Your task to perform on an android device: toggle javascript in the chrome app Image 0: 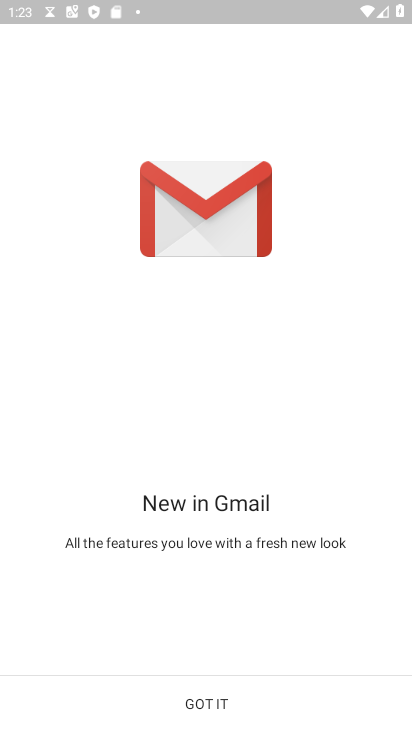
Step 0: click (196, 704)
Your task to perform on an android device: toggle javascript in the chrome app Image 1: 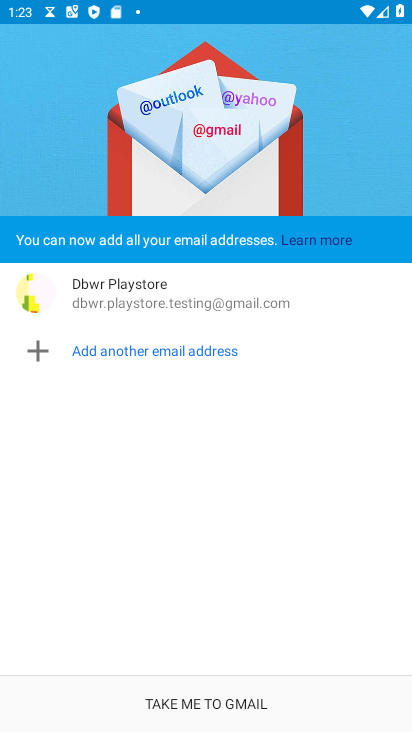
Step 1: press home button
Your task to perform on an android device: toggle javascript in the chrome app Image 2: 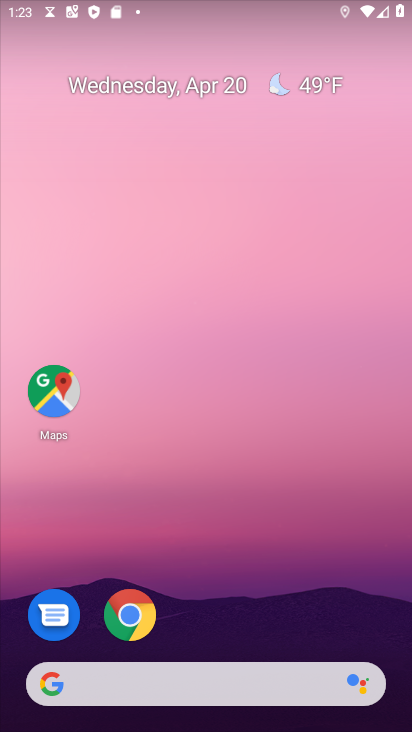
Step 2: click (136, 619)
Your task to perform on an android device: toggle javascript in the chrome app Image 3: 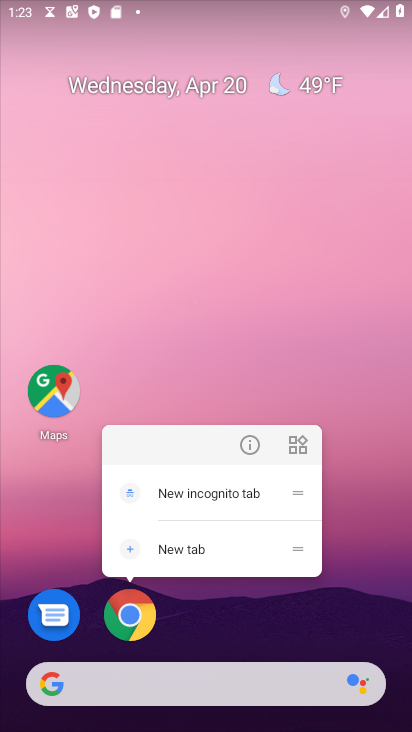
Step 3: click (372, 497)
Your task to perform on an android device: toggle javascript in the chrome app Image 4: 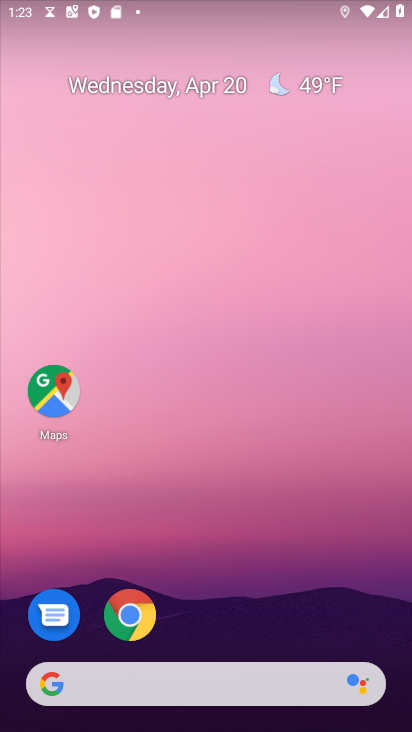
Step 4: click (131, 601)
Your task to perform on an android device: toggle javascript in the chrome app Image 5: 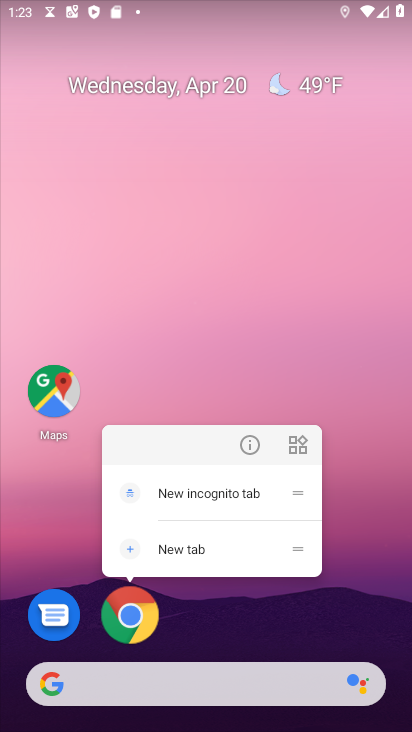
Step 5: click (122, 603)
Your task to perform on an android device: toggle javascript in the chrome app Image 6: 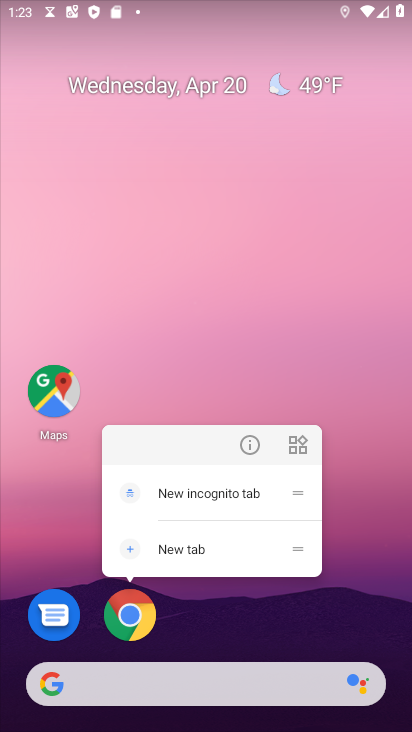
Step 6: click (122, 603)
Your task to perform on an android device: toggle javascript in the chrome app Image 7: 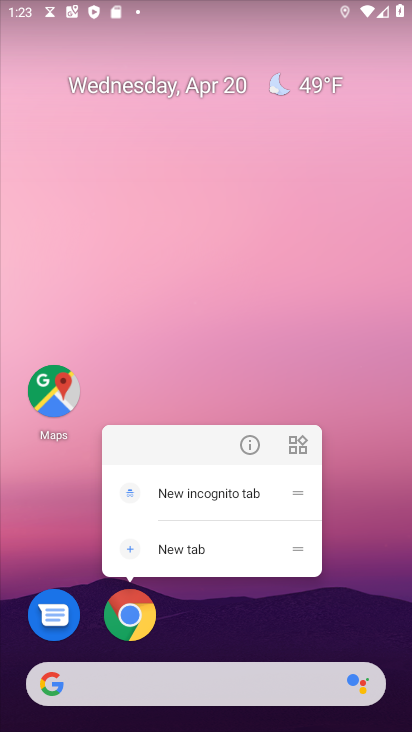
Step 7: click (125, 602)
Your task to perform on an android device: toggle javascript in the chrome app Image 8: 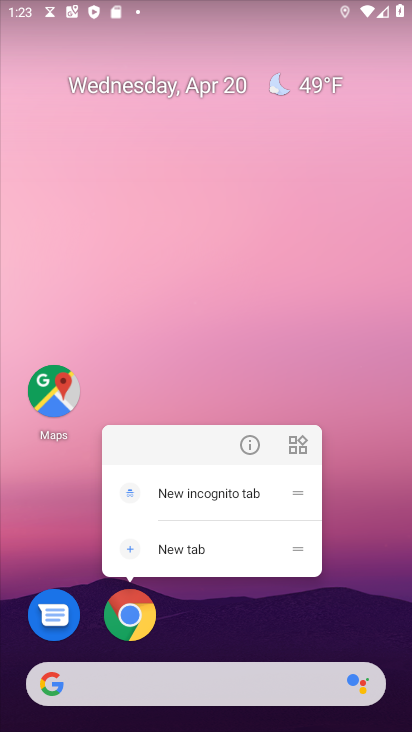
Step 8: click (131, 589)
Your task to perform on an android device: toggle javascript in the chrome app Image 9: 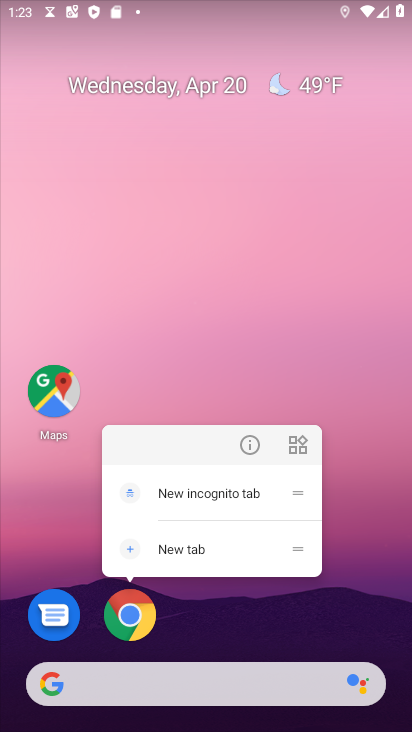
Step 9: click (135, 609)
Your task to perform on an android device: toggle javascript in the chrome app Image 10: 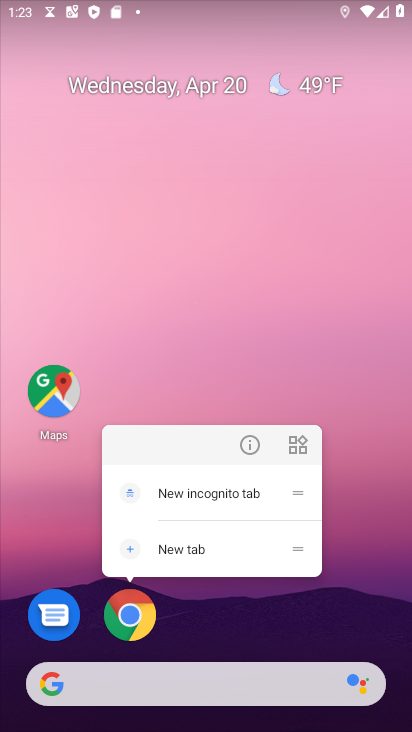
Step 10: click (136, 610)
Your task to perform on an android device: toggle javascript in the chrome app Image 11: 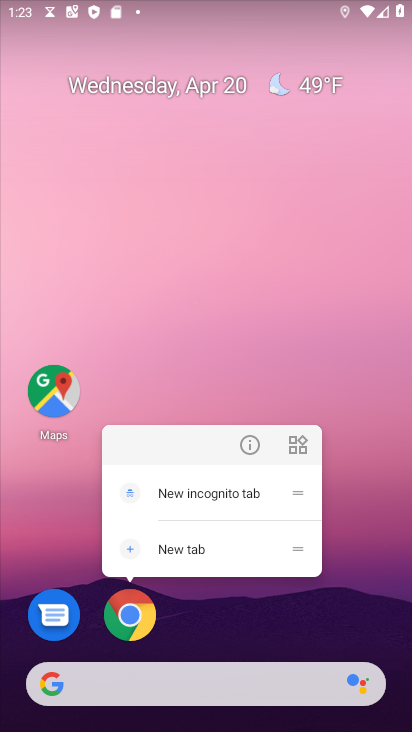
Step 11: click (114, 617)
Your task to perform on an android device: toggle javascript in the chrome app Image 12: 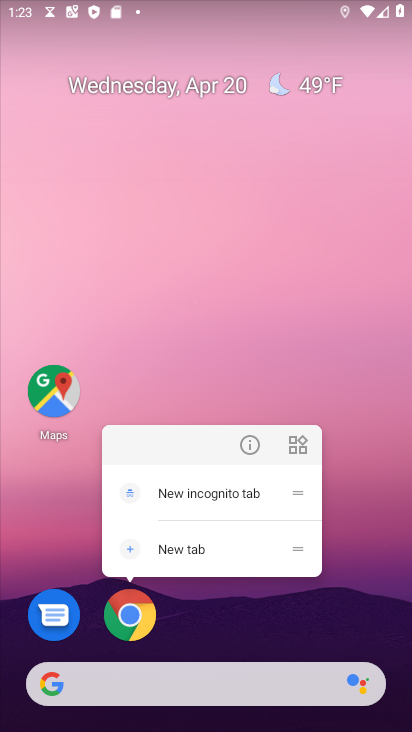
Step 12: click (115, 616)
Your task to perform on an android device: toggle javascript in the chrome app Image 13: 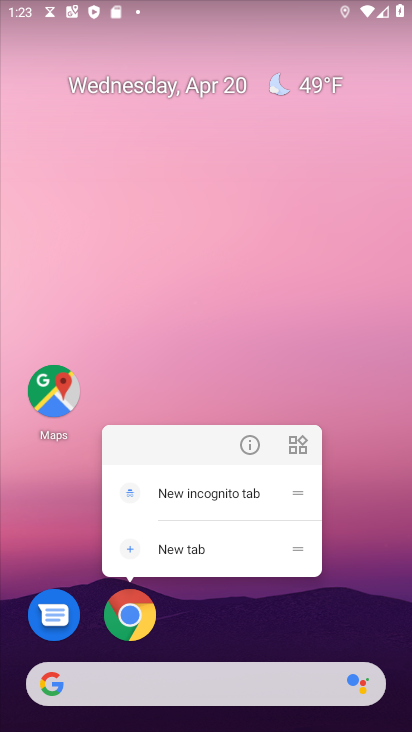
Step 13: click (63, 364)
Your task to perform on an android device: toggle javascript in the chrome app Image 14: 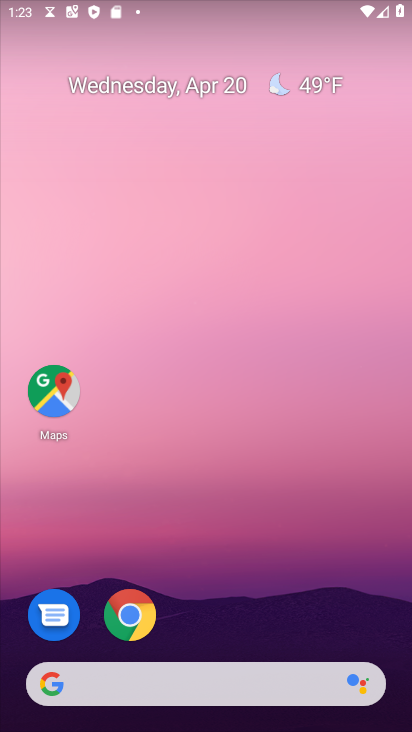
Step 14: click (121, 593)
Your task to perform on an android device: toggle javascript in the chrome app Image 15: 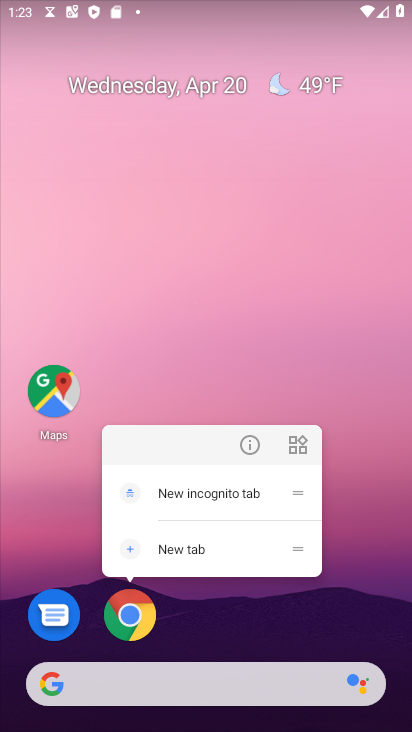
Step 15: click (124, 593)
Your task to perform on an android device: toggle javascript in the chrome app Image 16: 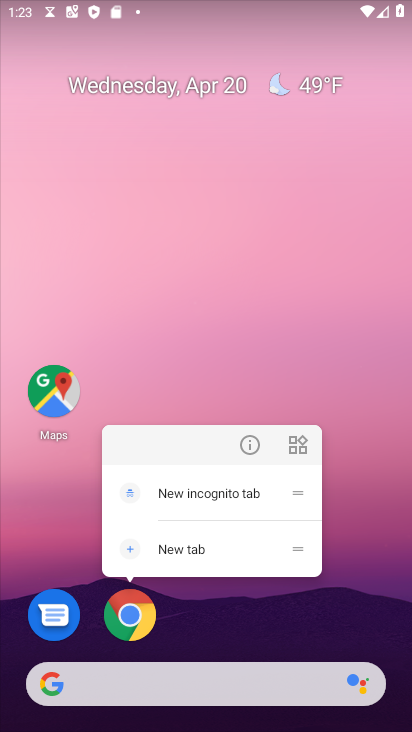
Step 16: click (132, 609)
Your task to perform on an android device: toggle javascript in the chrome app Image 17: 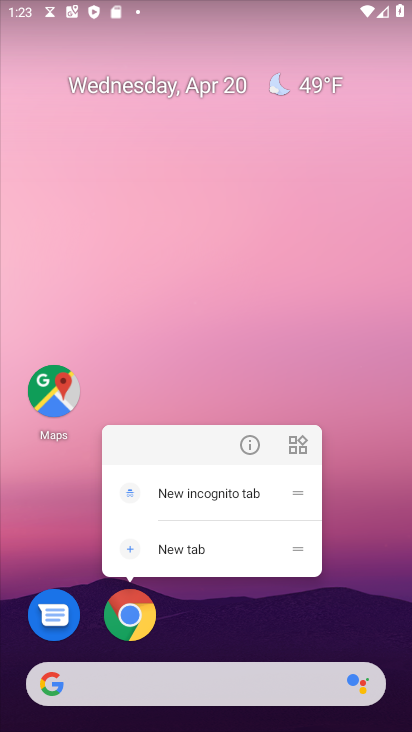
Step 17: click (134, 606)
Your task to perform on an android device: toggle javascript in the chrome app Image 18: 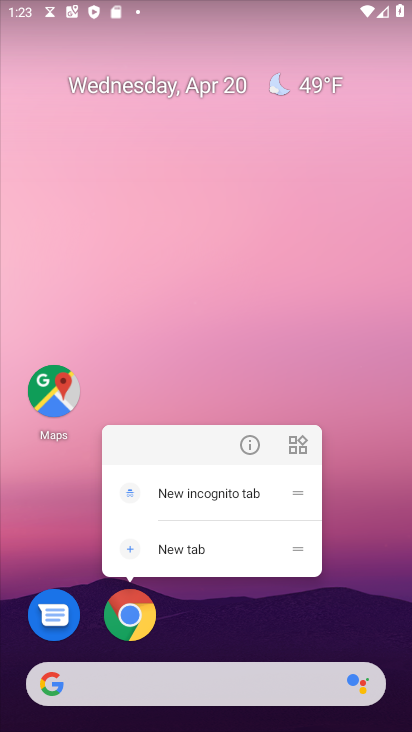
Step 18: click (134, 601)
Your task to perform on an android device: toggle javascript in the chrome app Image 19: 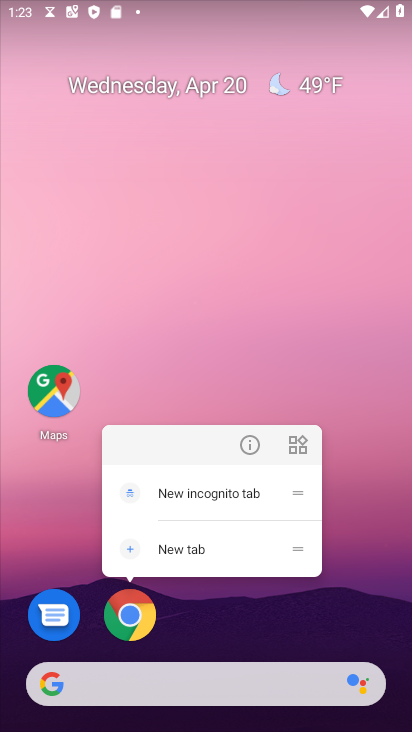
Step 19: click (134, 599)
Your task to perform on an android device: toggle javascript in the chrome app Image 20: 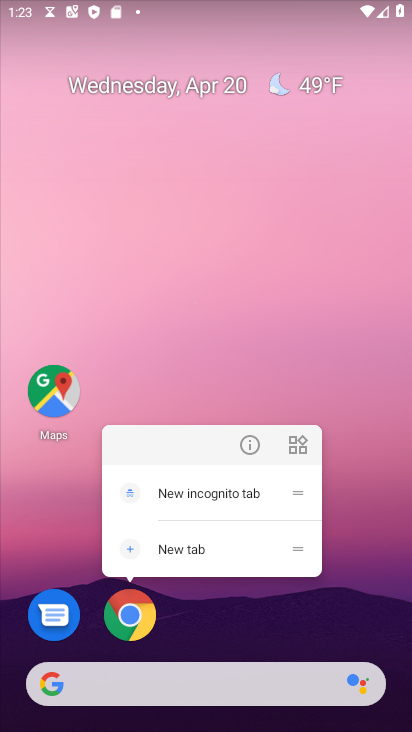
Step 20: click (136, 596)
Your task to perform on an android device: toggle javascript in the chrome app Image 21: 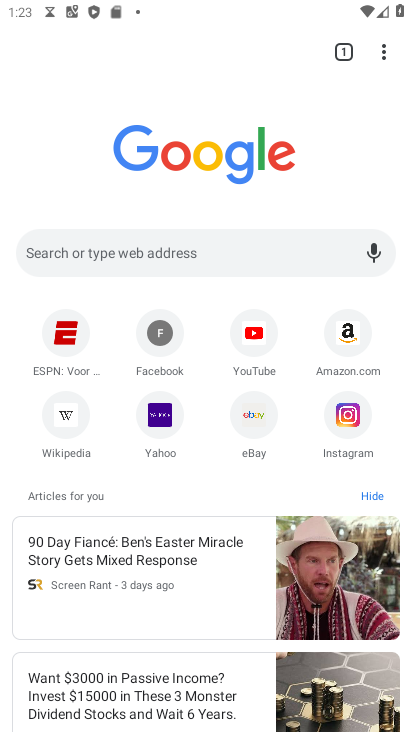
Step 21: click (375, 51)
Your task to perform on an android device: toggle javascript in the chrome app Image 22: 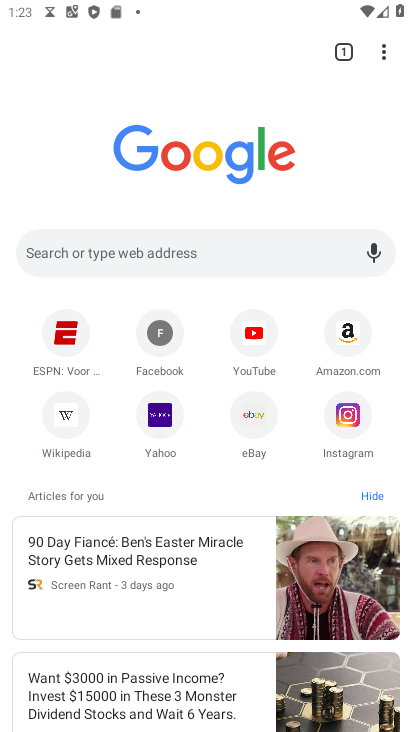
Step 22: click (379, 49)
Your task to perform on an android device: toggle javascript in the chrome app Image 23: 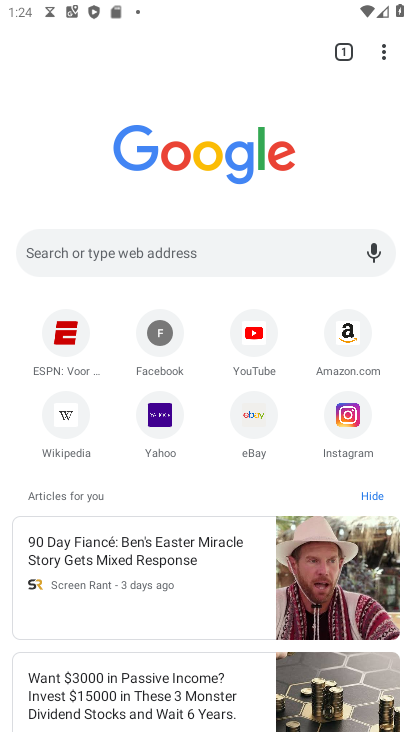
Step 23: drag from (399, 146) to (381, 46)
Your task to perform on an android device: toggle javascript in the chrome app Image 24: 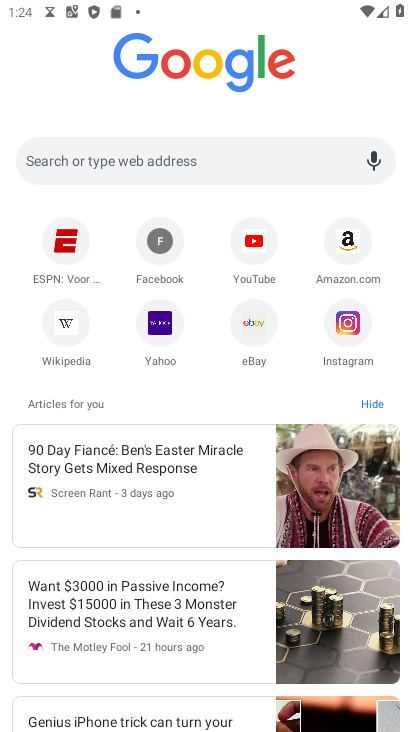
Step 24: drag from (346, 170) to (398, 145)
Your task to perform on an android device: toggle javascript in the chrome app Image 25: 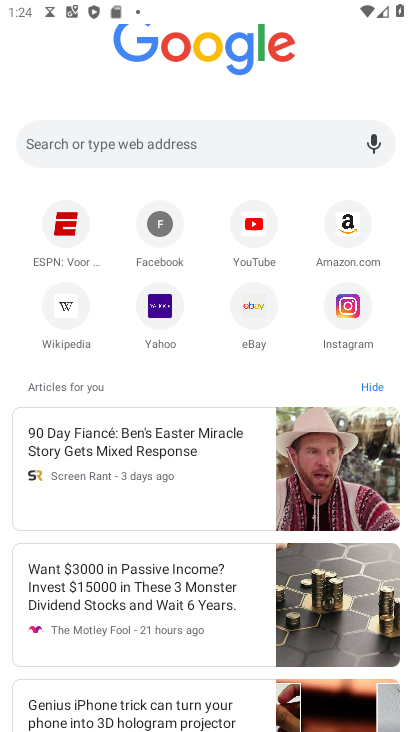
Step 25: click (251, 284)
Your task to perform on an android device: toggle javascript in the chrome app Image 26: 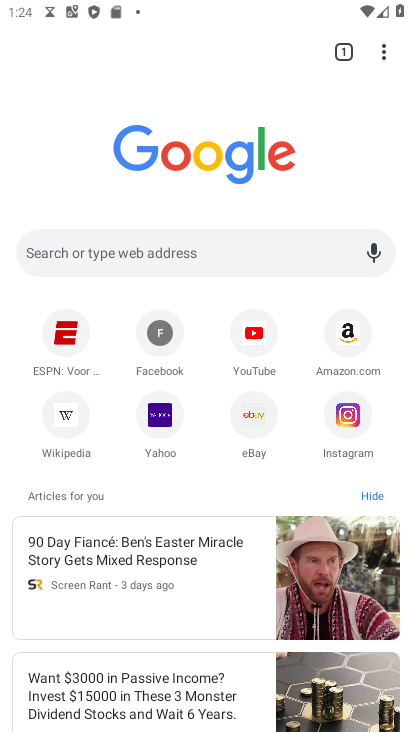
Step 26: click (376, 35)
Your task to perform on an android device: toggle javascript in the chrome app Image 27: 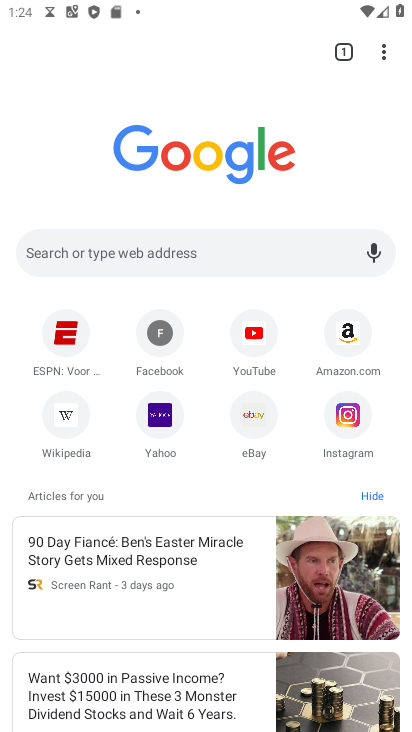
Step 27: click (378, 49)
Your task to perform on an android device: toggle javascript in the chrome app Image 28: 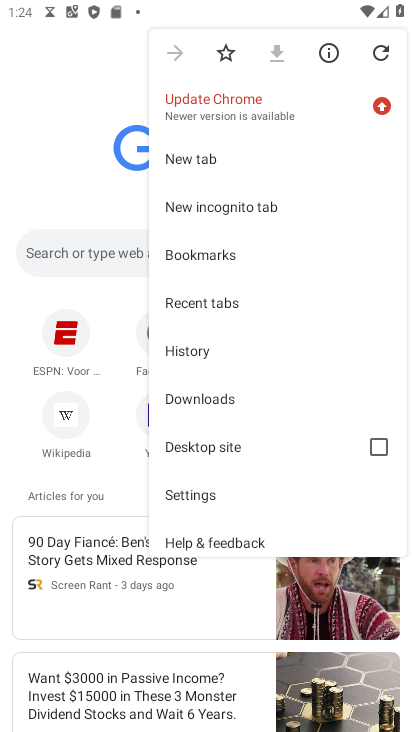
Step 28: click (208, 500)
Your task to perform on an android device: toggle javascript in the chrome app Image 29: 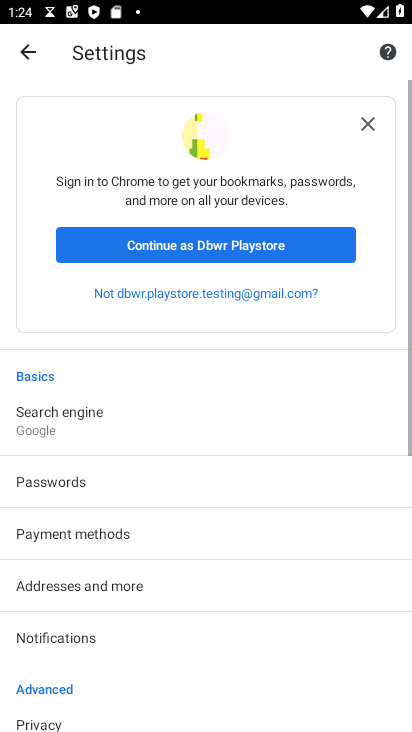
Step 29: drag from (168, 647) to (255, 294)
Your task to perform on an android device: toggle javascript in the chrome app Image 30: 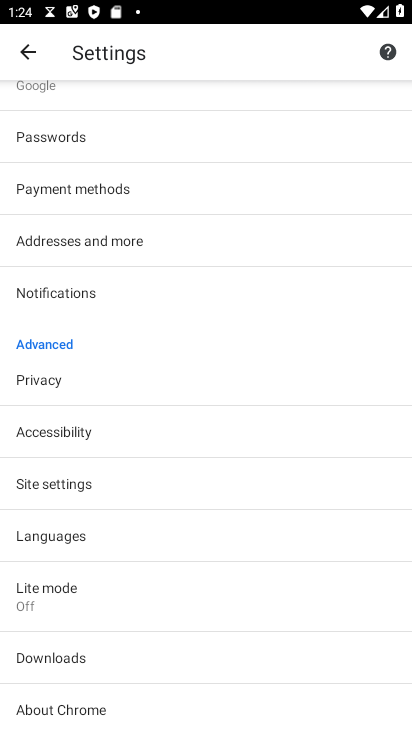
Step 30: click (99, 485)
Your task to perform on an android device: toggle javascript in the chrome app Image 31: 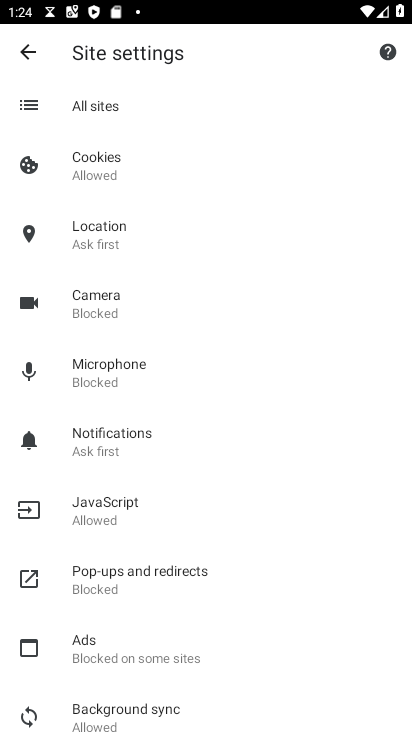
Step 31: drag from (169, 656) to (255, 263)
Your task to perform on an android device: toggle javascript in the chrome app Image 32: 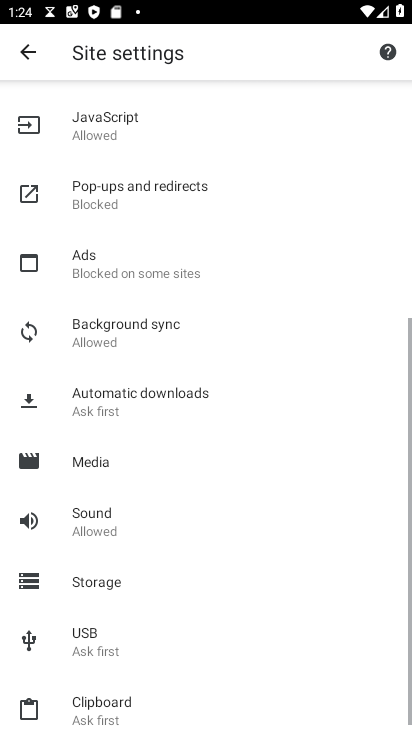
Step 32: drag from (180, 572) to (297, 269)
Your task to perform on an android device: toggle javascript in the chrome app Image 33: 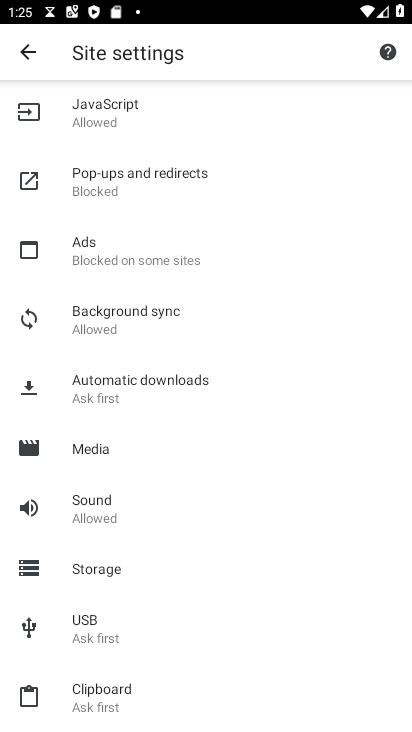
Step 33: click (131, 97)
Your task to perform on an android device: toggle javascript in the chrome app Image 34: 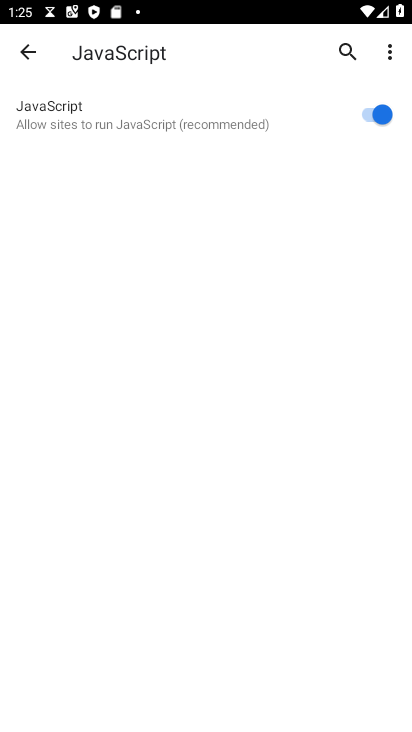
Step 34: click (384, 110)
Your task to perform on an android device: toggle javascript in the chrome app Image 35: 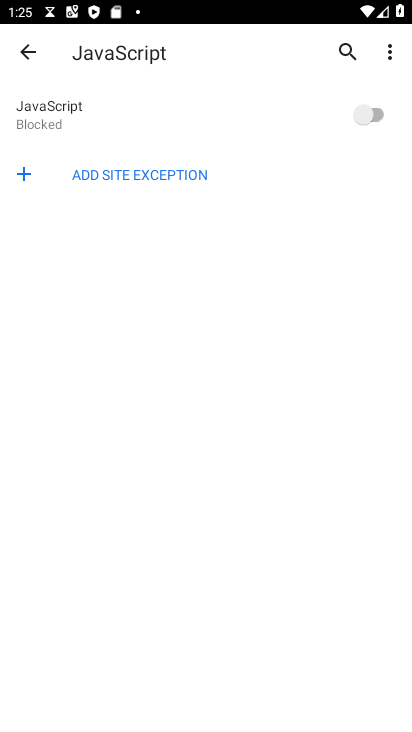
Step 35: task complete